Your task to perform on an android device: Open calendar and show me the third week of next month Image 0: 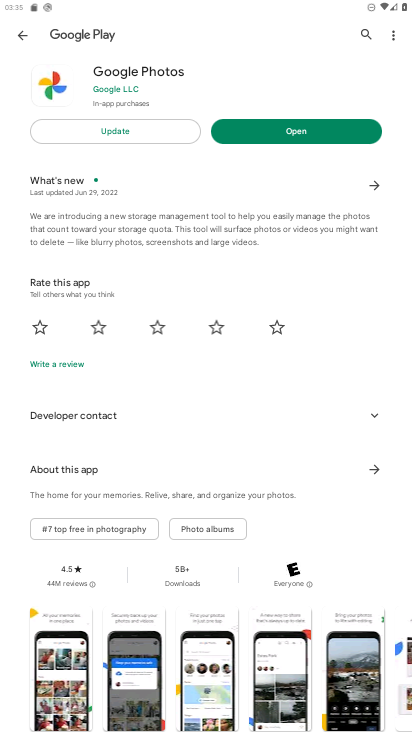
Step 0: press home button
Your task to perform on an android device: Open calendar and show me the third week of next month Image 1: 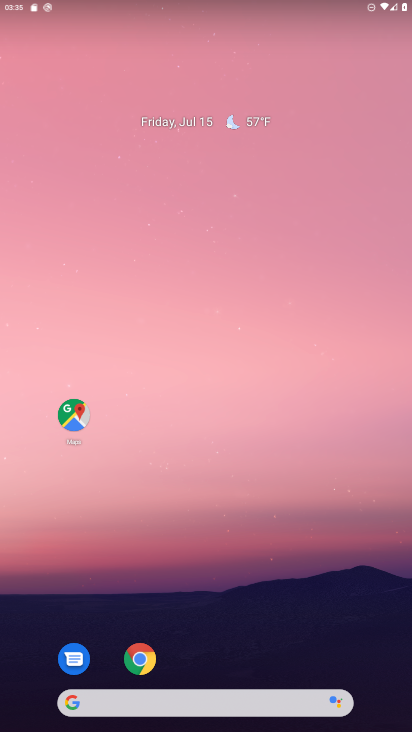
Step 1: drag from (299, 280) to (321, 75)
Your task to perform on an android device: Open calendar and show me the third week of next month Image 2: 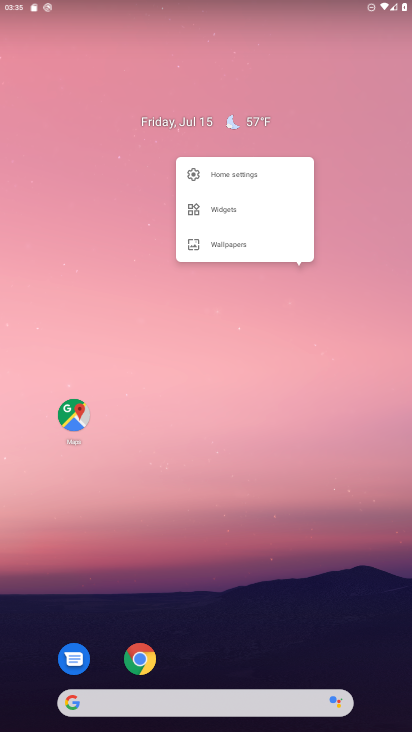
Step 2: click (300, 444)
Your task to perform on an android device: Open calendar and show me the third week of next month Image 3: 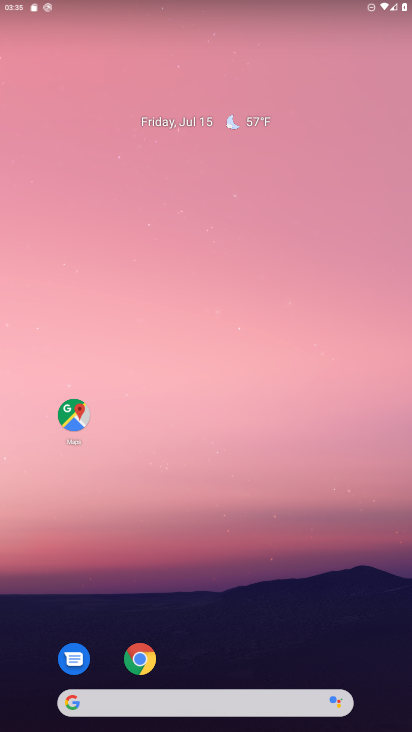
Step 3: drag from (275, 635) to (253, 0)
Your task to perform on an android device: Open calendar and show me the third week of next month Image 4: 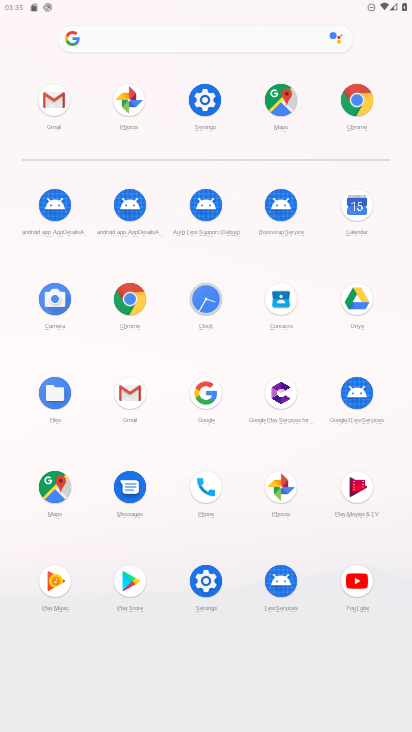
Step 4: click (358, 215)
Your task to perform on an android device: Open calendar and show me the third week of next month Image 5: 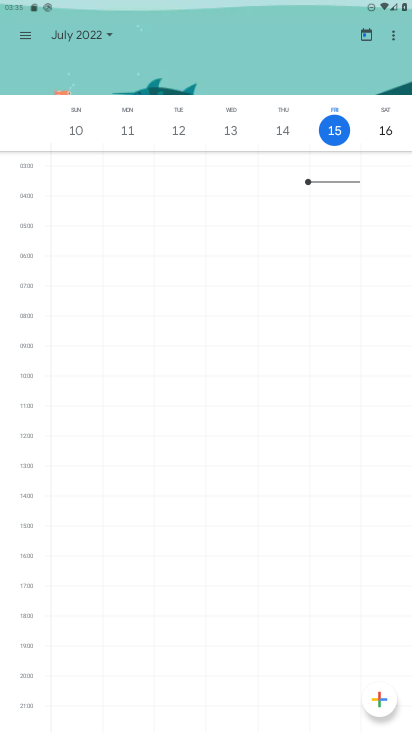
Step 5: task complete